Your task to perform on an android device: Turn on the flashlight Image 0: 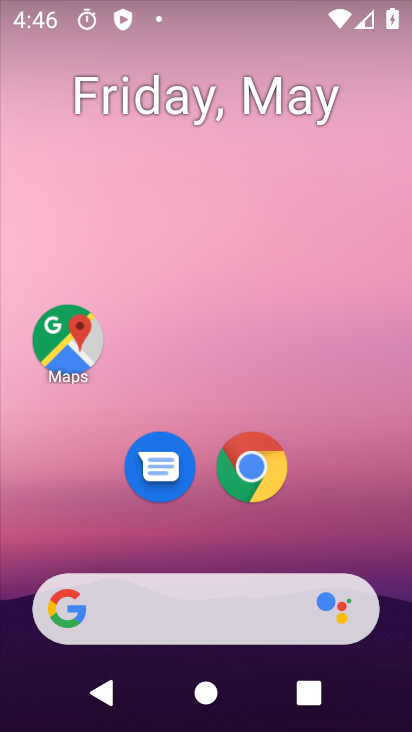
Step 0: drag from (346, 496) to (332, 383)
Your task to perform on an android device: Turn on the flashlight Image 1: 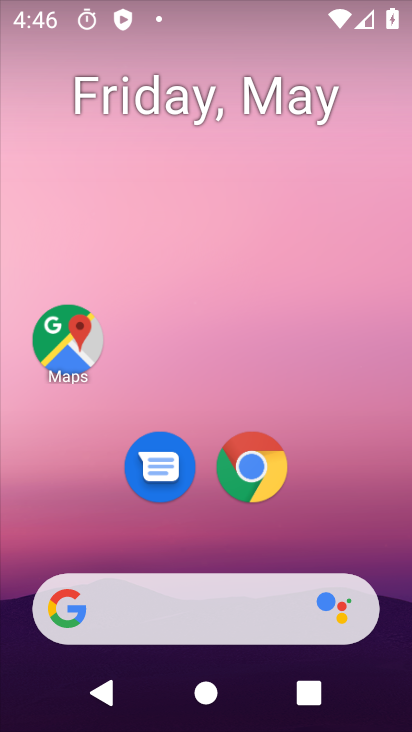
Step 1: task complete